Your task to perform on an android device: Add "logitech g502" to the cart on amazon.com Image 0: 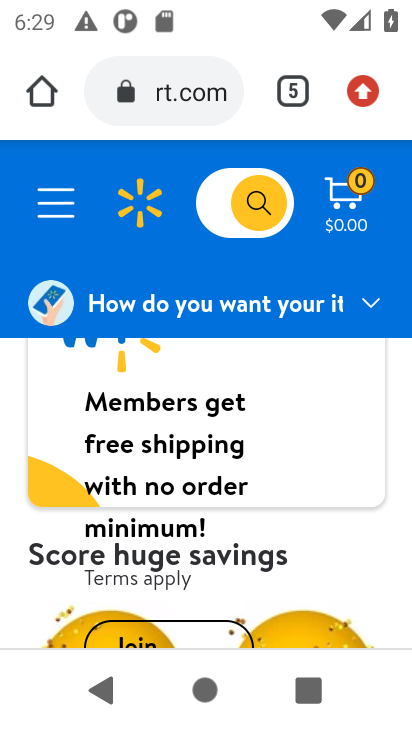
Step 0: press home button
Your task to perform on an android device: Add "logitech g502" to the cart on amazon.com Image 1: 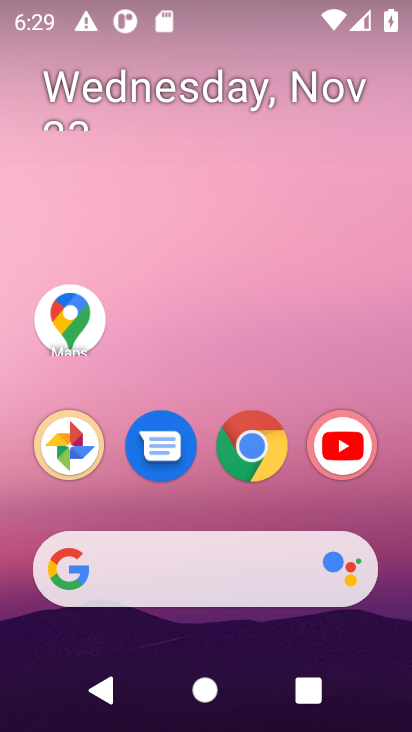
Step 1: click (159, 557)
Your task to perform on an android device: Add "logitech g502" to the cart on amazon.com Image 2: 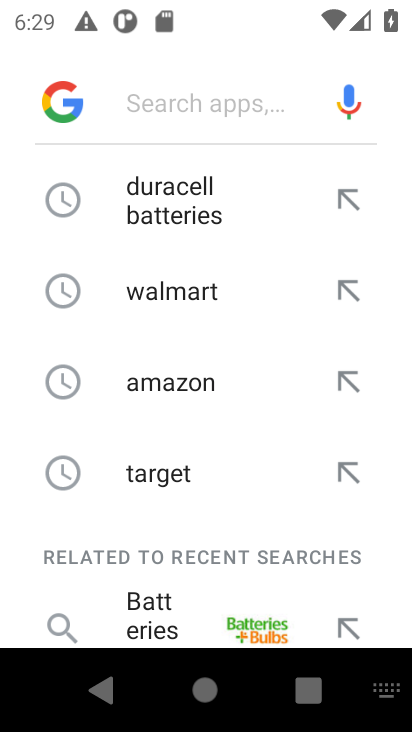
Step 2: type "amazon"
Your task to perform on an android device: Add "logitech g502" to the cart on amazon.com Image 3: 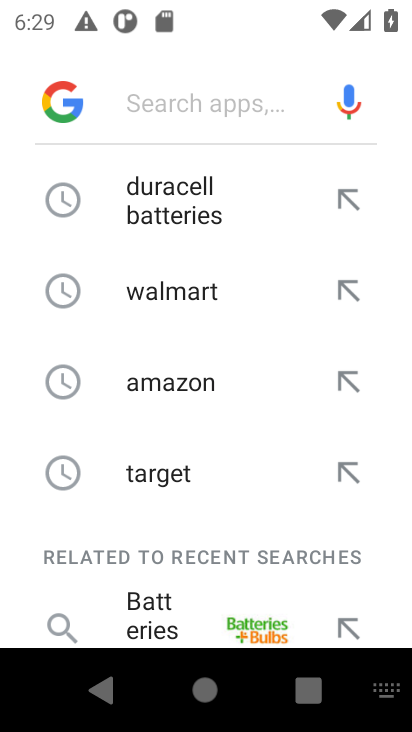
Step 3: click (215, 375)
Your task to perform on an android device: Add "logitech g502" to the cart on amazon.com Image 4: 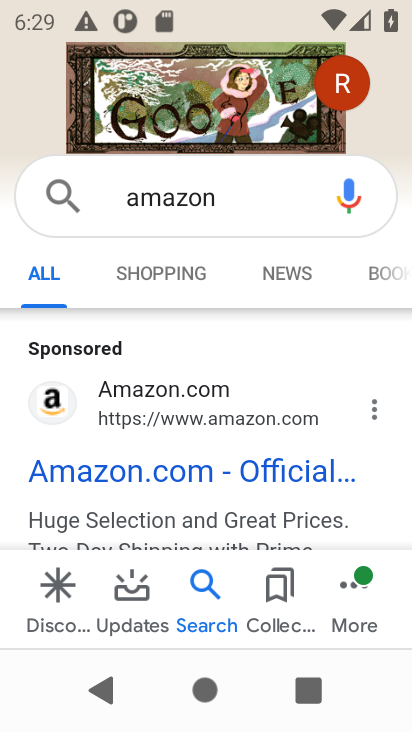
Step 4: click (137, 459)
Your task to perform on an android device: Add "logitech g502" to the cart on amazon.com Image 5: 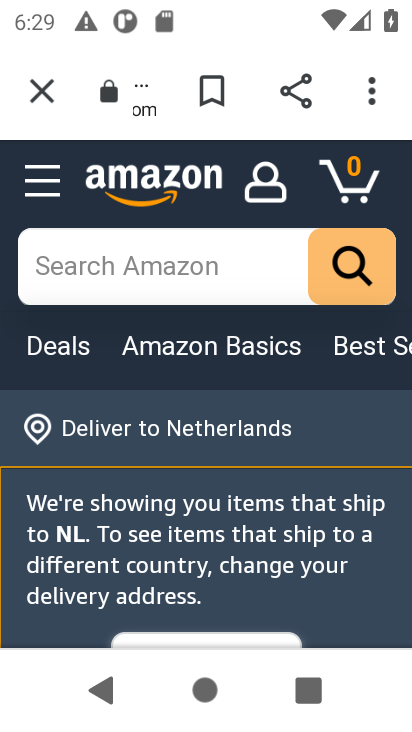
Step 5: click (179, 289)
Your task to perform on an android device: Add "logitech g502" to the cart on amazon.com Image 6: 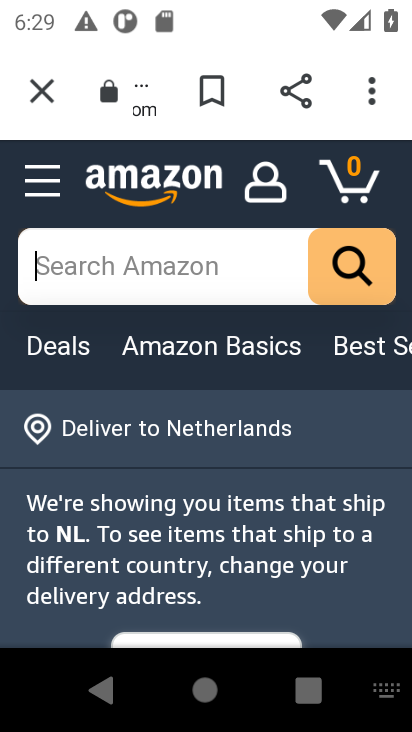
Step 6: type "logitech g502"
Your task to perform on an android device: Add "logitech g502" to the cart on amazon.com Image 7: 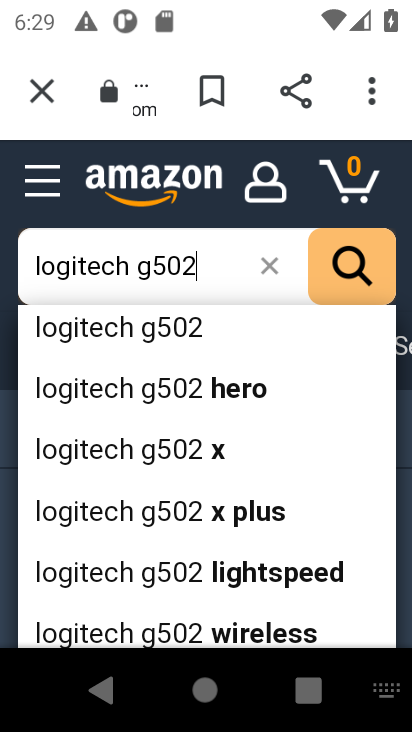
Step 7: click (285, 327)
Your task to perform on an android device: Add "logitech g502" to the cart on amazon.com Image 8: 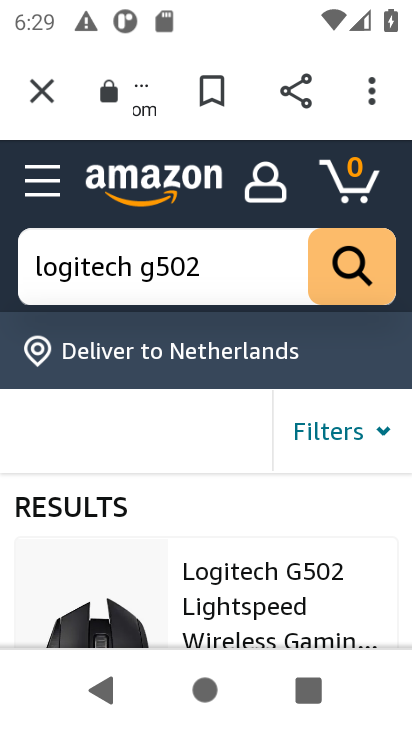
Step 8: click (238, 572)
Your task to perform on an android device: Add "logitech g502" to the cart on amazon.com Image 9: 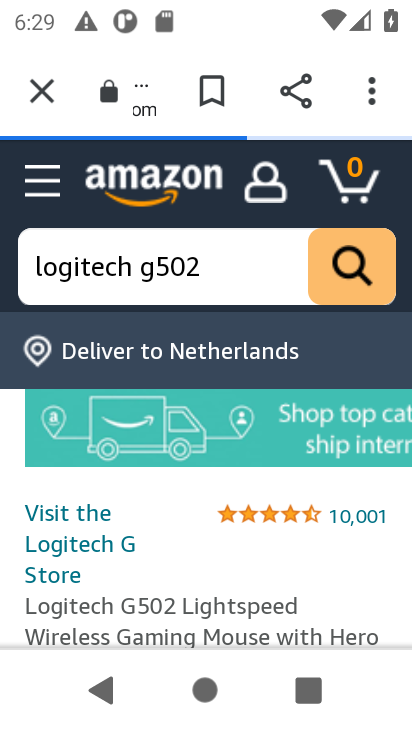
Step 9: drag from (238, 572) to (283, 180)
Your task to perform on an android device: Add "logitech g502" to the cart on amazon.com Image 10: 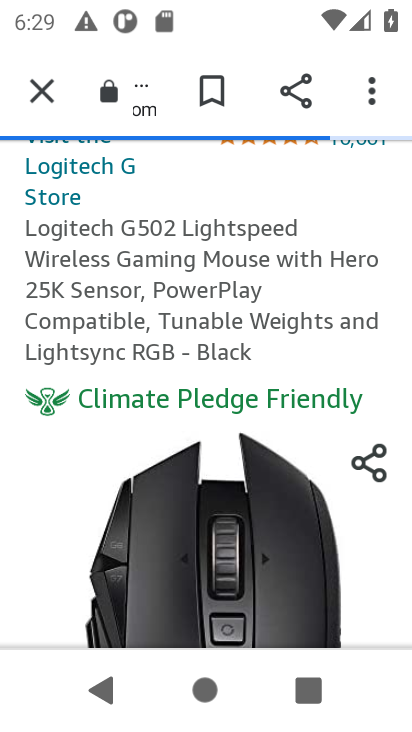
Step 10: drag from (359, 568) to (332, 106)
Your task to perform on an android device: Add "logitech g502" to the cart on amazon.com Image 11: 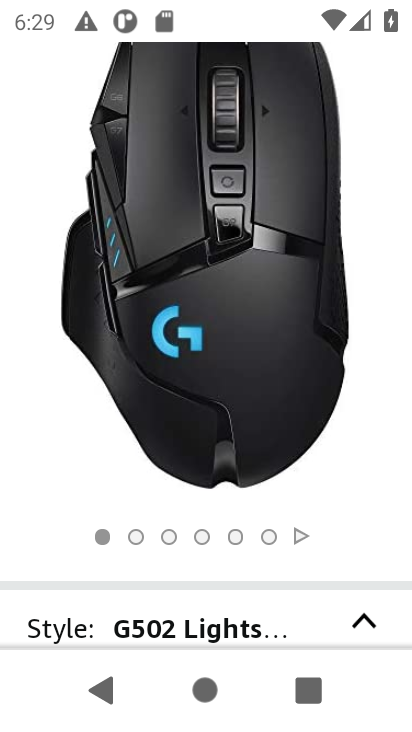
Step 11: drag from (339, 546) to (378, 75)
Your task to perform on an android device: Add "logitech g502" to the cart on amazon.com Image 12: 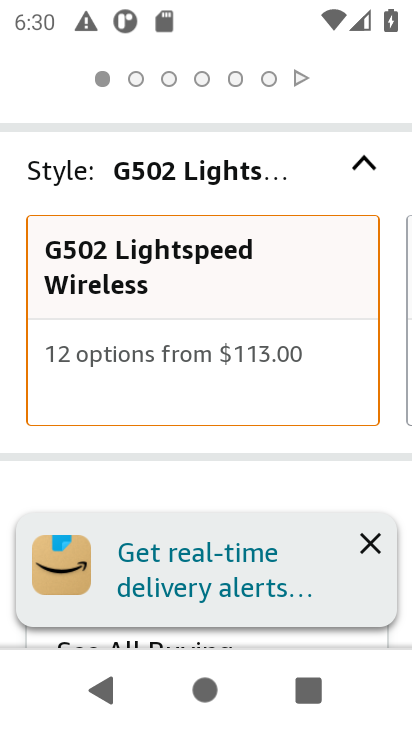
Step 12: click (366, 553)
Your task to perform on an android device: Add "logitech g502" to the cart on amazon.com Image 13: 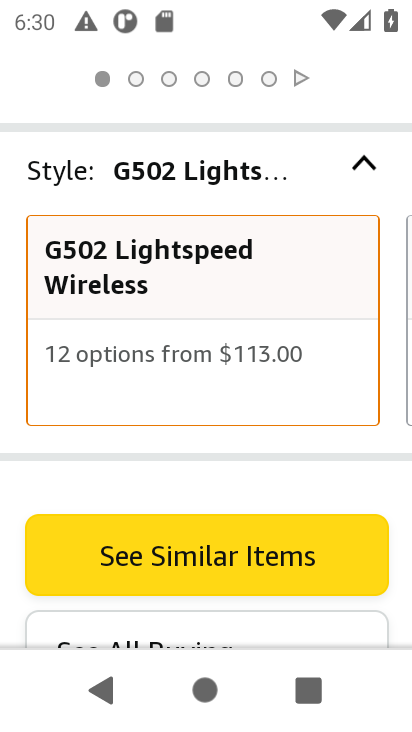
Step 13: task complete